Your task to perform on an android device: turn off priority inbox in the gmail app Image 0: 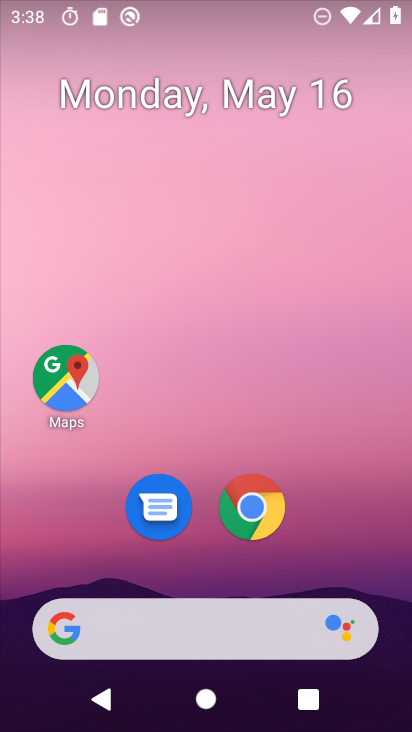
Step 0: drag from (399, 516) to (398, 16)
Your task to perform on an android device: turn off priority inbox in the gmail app Image 1: 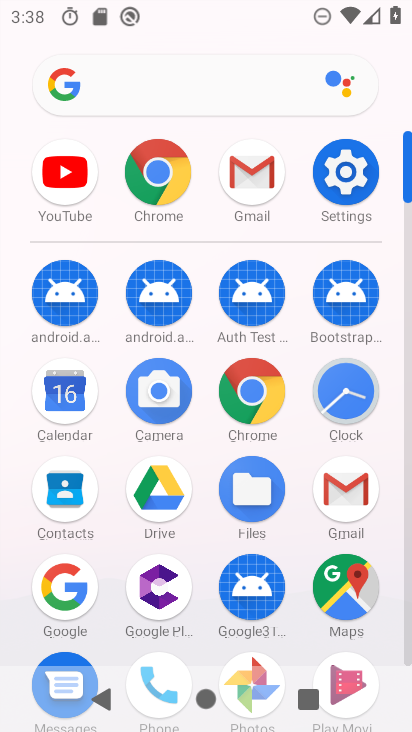
Step 1: click (254, 181)
Your task to perform on an android device: turn off priority inbox in the gmail app Image 2: 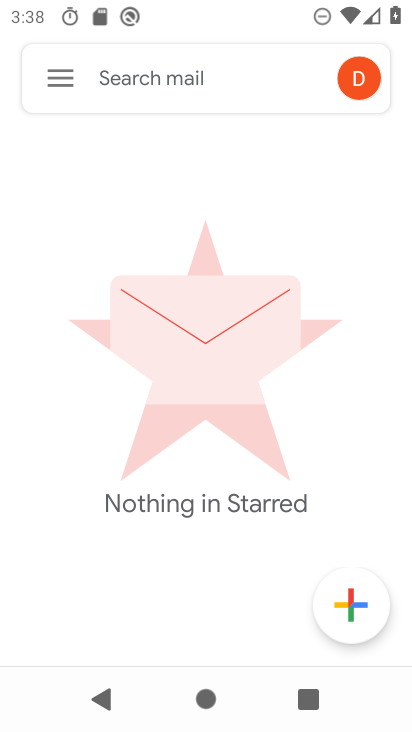
Step 2: click (63, 87)
Your task to perform on an android device: turn off priority inbox in the gmail app Image 3: 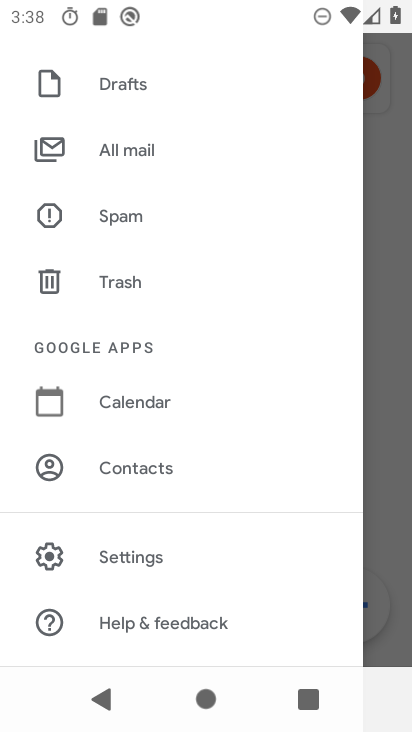
Step 3: click (124, 568)
Your task to perform on an android device: turn off priority inbox in the gmail app Image 4: 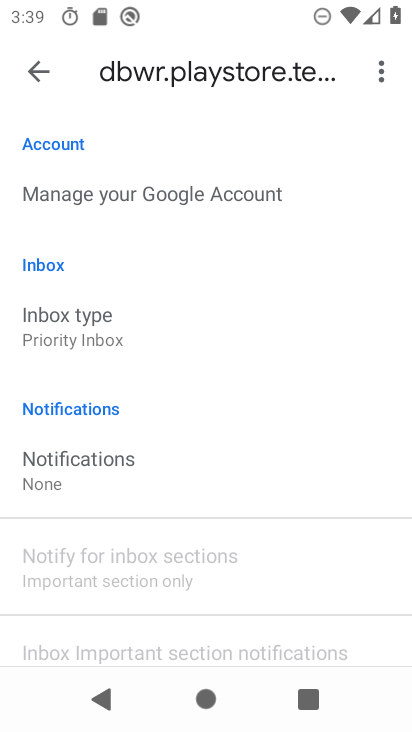
Step 4: click (124, 332)
Your task to perform on an android device: turn off priority inbox in the gmail app Image 5: 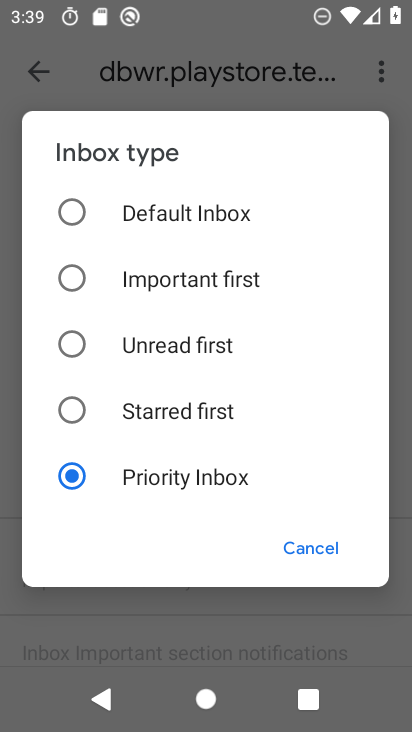
Step 5: click (78, 195)
Your task to perform on an android device: turn off priority inbox in the gmail app Image 6: 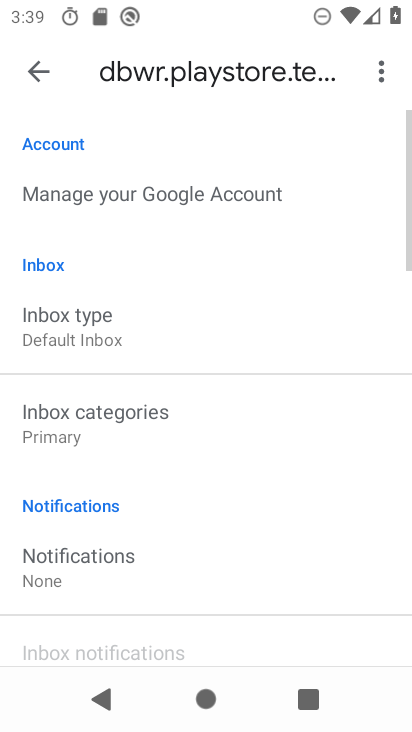
Step 6: task complete